Your task to perform on an android device: turn on improve location accuracy Image 0: 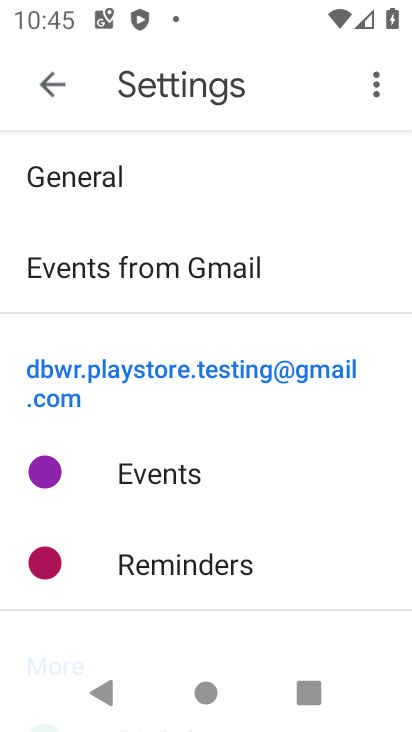
Step 0: press home button
Your task to perform on an android device: turn on improve location accuracy Image 1: 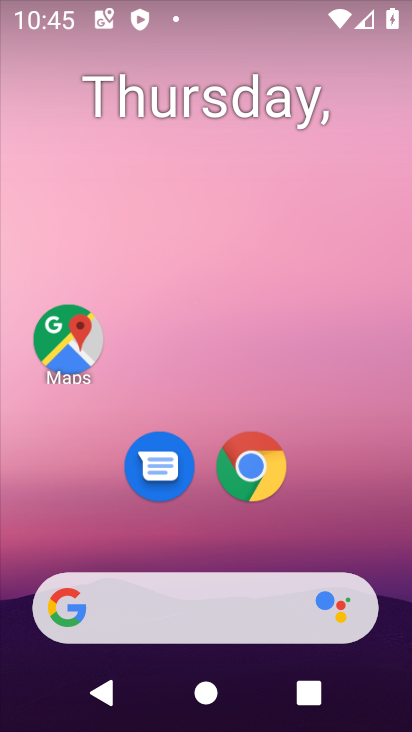
Step 1: drag from (218, 535) to (230, 122)
Your task to perform on an android device: turn on improve location accuracy Image 2: 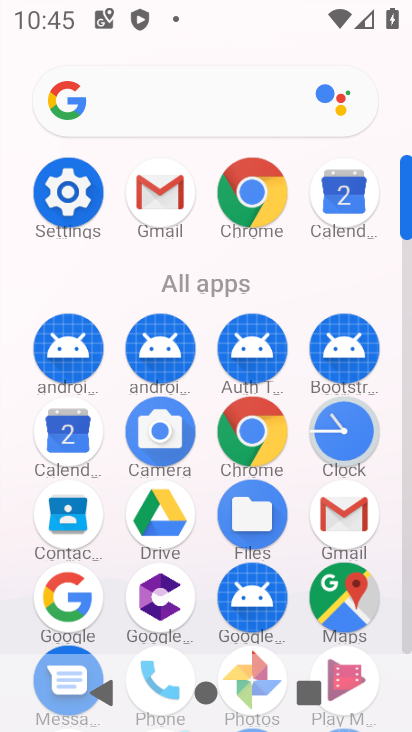
Step 2: click (83, 213)
Your task to perform on an android device: turn on improve location accuracy Image 3: 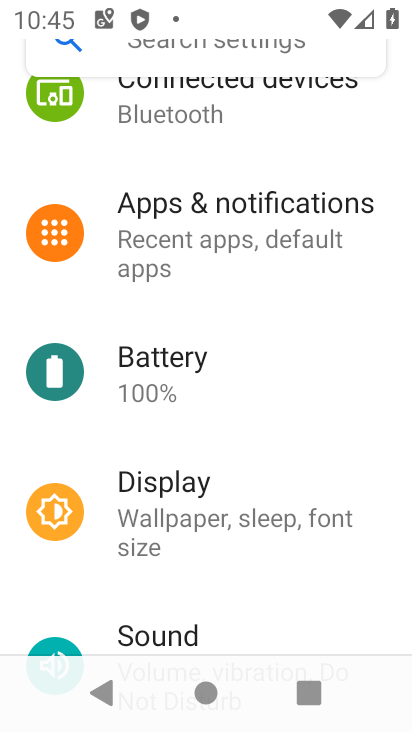
Step 3: drag from (178, 200) to (245, 545)
Your task to perform on an android device: turn on improve location accuracy Image 4: 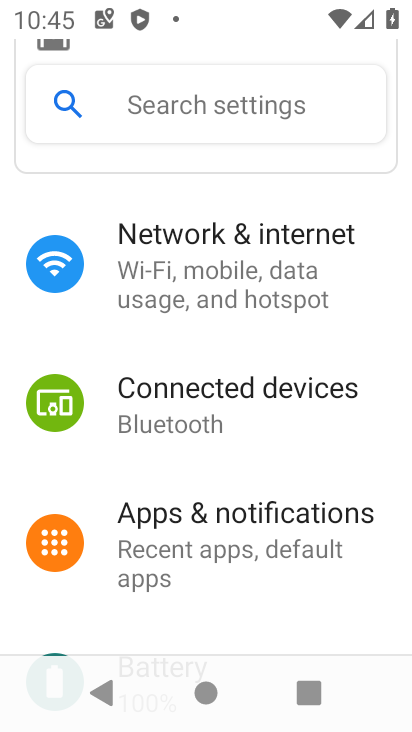
Step 4: drag from (197, 268) to (230, 302)
Your task to perform on an android device: turn on improve location accuracy Image 5: 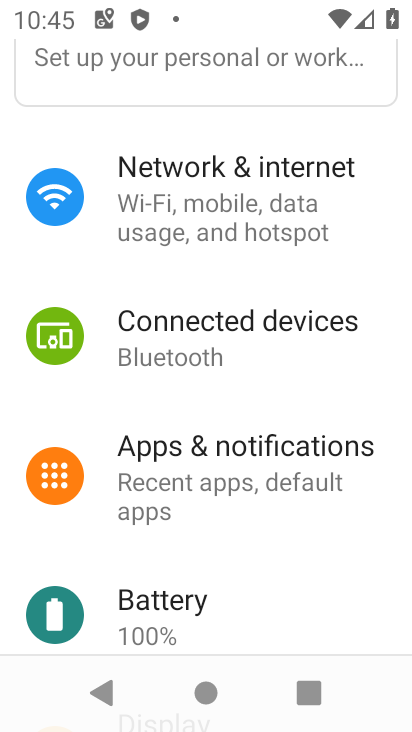
Step 5: drag from (206, 554) to (212, 275)
Your task to perform on an android device: turn on improve location accuracy Image 6: 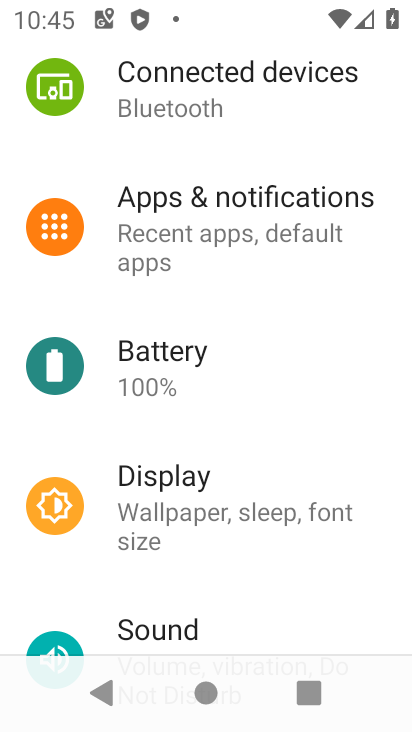
Step 6: drag from (209, 573) to (202, 245)
Your task to perform on an android device: turn on improve location accuracy Image 7: 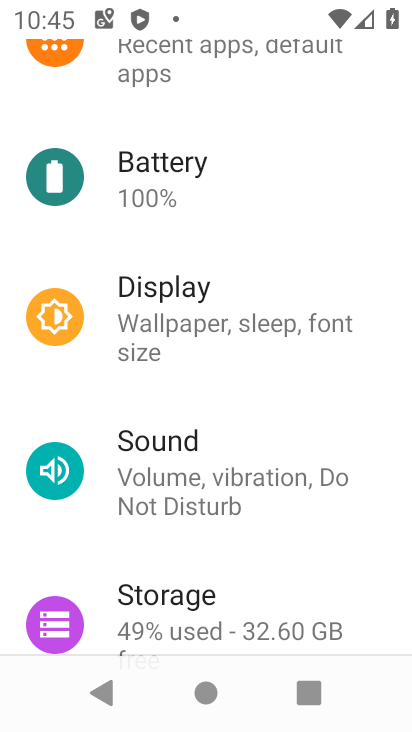
Step 7: drag from (246, 469) to (233, 223)
Your task to perform on an android device: turn on improve location accuracy Image 8: 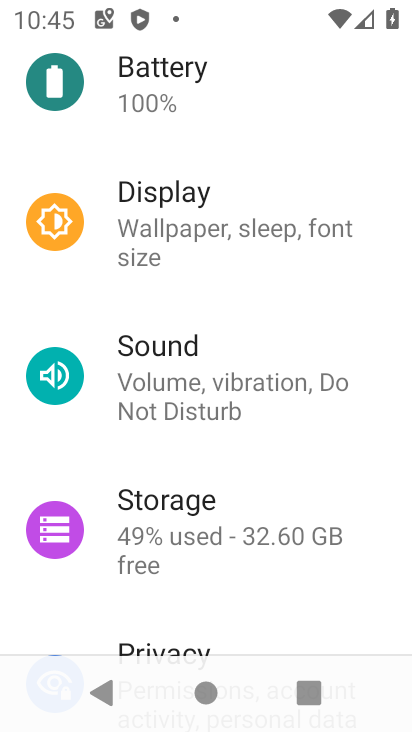
Step 8: drag from (246, 524) to (251, 285)
Your task to perform on an android device: turn on improve location accuracy Image 9: 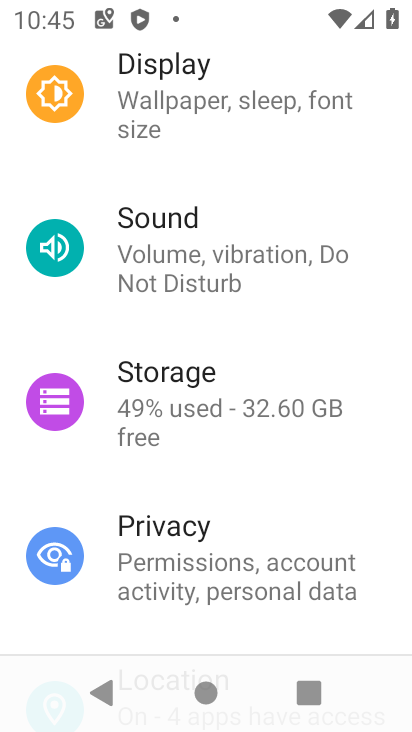
Step 9: drag from (262, 457) to (231, 182)
Your task to perform on an android device: turn on improve location accuracy Image 10: 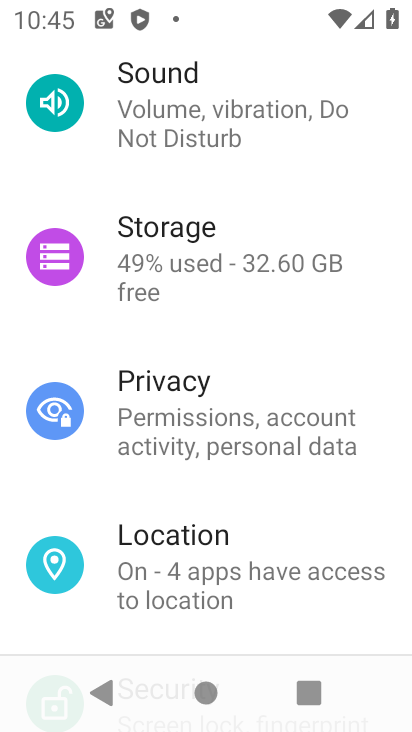
Step 10: drag from (238, 505) to (247, 225)
Your task to perform on an android device: turn on improve location accuracy Image 11: 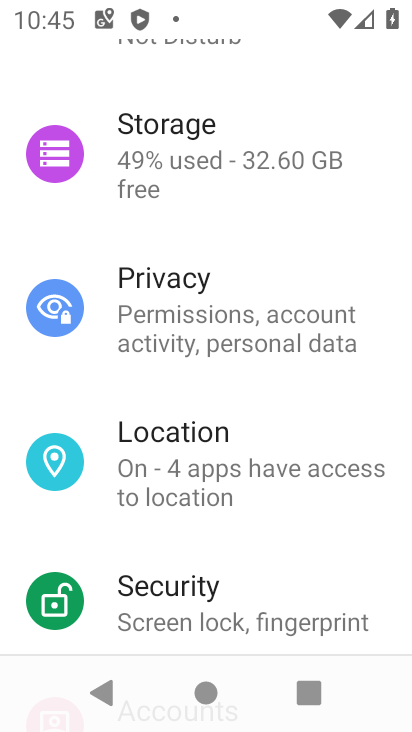
Step 11: click (223, 470)
Your task to perform on an android device: turn on improve location accuracy Image 12: 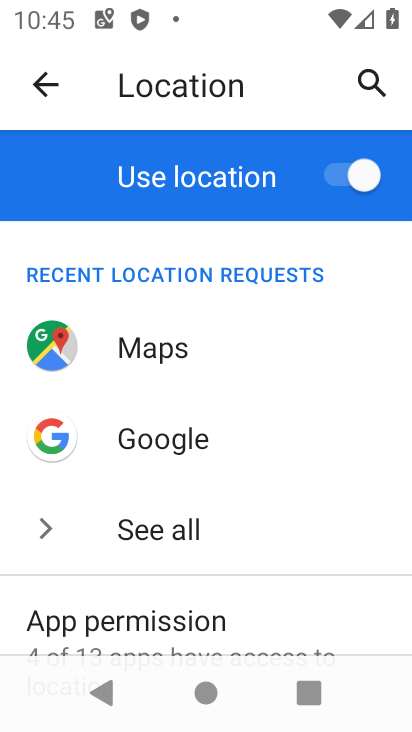
Step 12: drag from (206, 539) to (177, 236)
Your task to perform on an android device: turn on improve location accuracy Image 13: 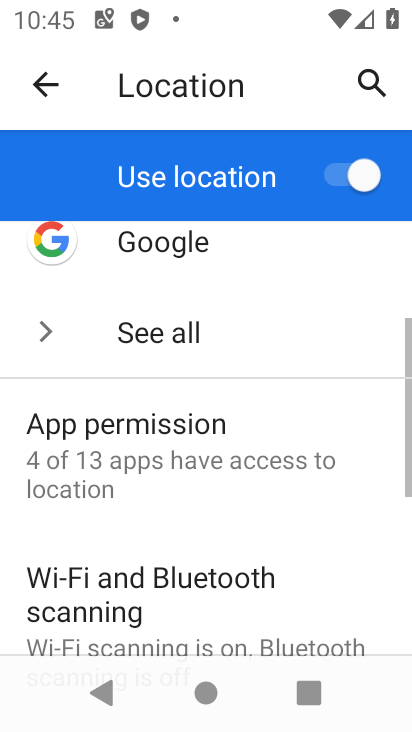
Step 13: drag from (200, 540) to (203, 217)
Your task to perform on an android device: turn on improve location accuracy Image 14: 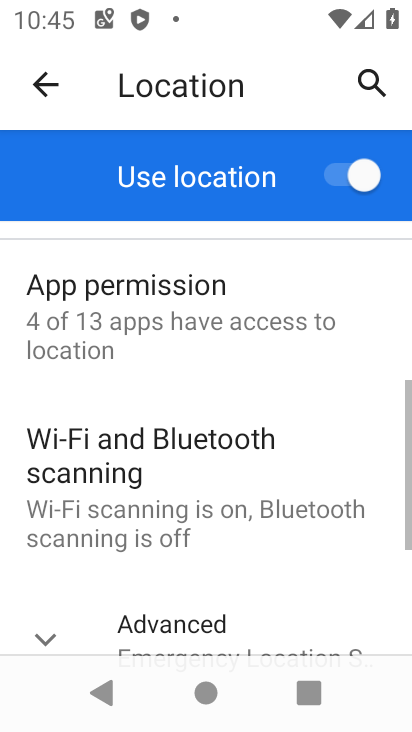
Step 14: drag from (205, 455) to (210, 197)
Your task to perform on an android device: turn on improve location accuracy Image 15: 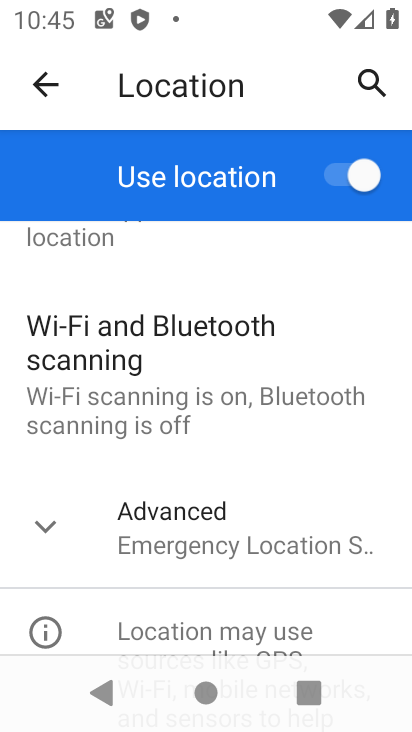
Step 15: click (192, 551)
Your task to perform on an android device: turn on improve location accuracy Image 16: 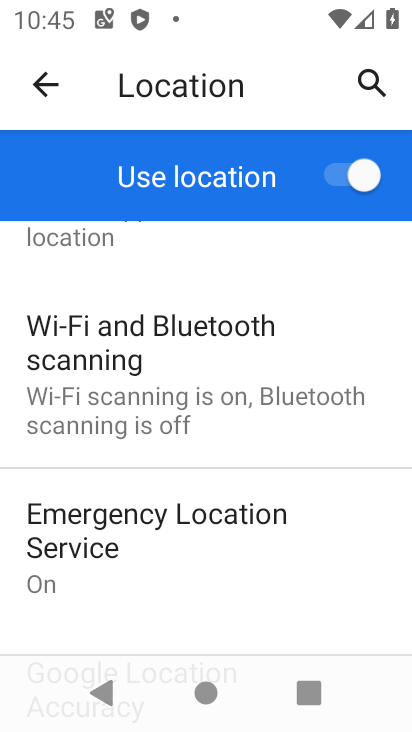
Step 16: drag from (183, 536) to (166, 246)
Your task to perform on an android device: turn on improve location accuracy Image 17: 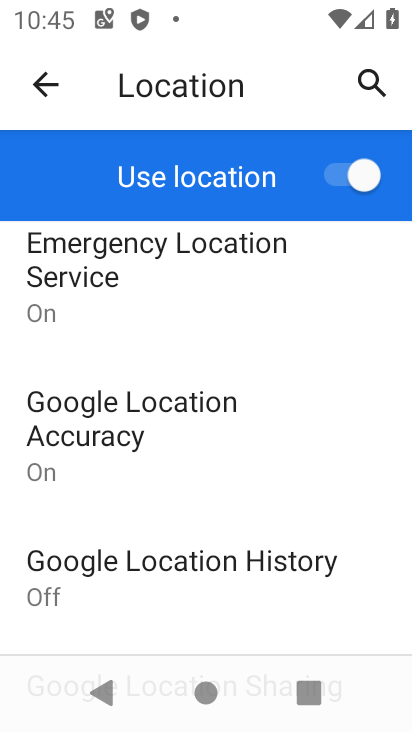
Step 17: click (173, 444)
Your task to perform on an android device: turn on improve location accuracy Image 18: 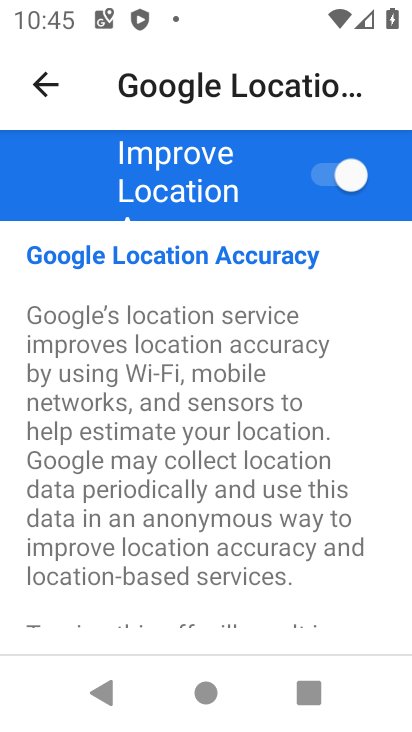
Step 18: task complete